Your task to perform on an android device: Open sound settings Image 0: 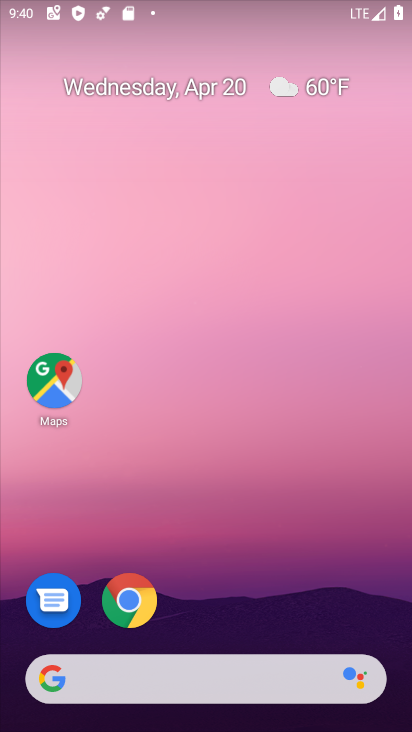
Step 0: drag from (258, 631) to (203, 101)
Your task to perform on an android device: Open sound settings Image 1: 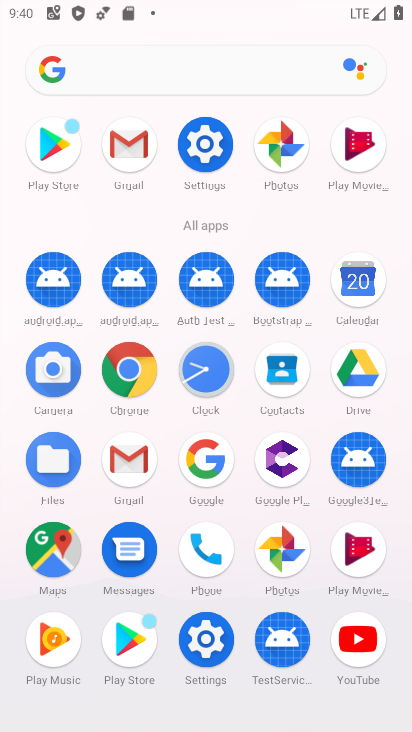
Step 1: click (207, 648)
Your task to perform on an android device: Open sound settings Image 2: 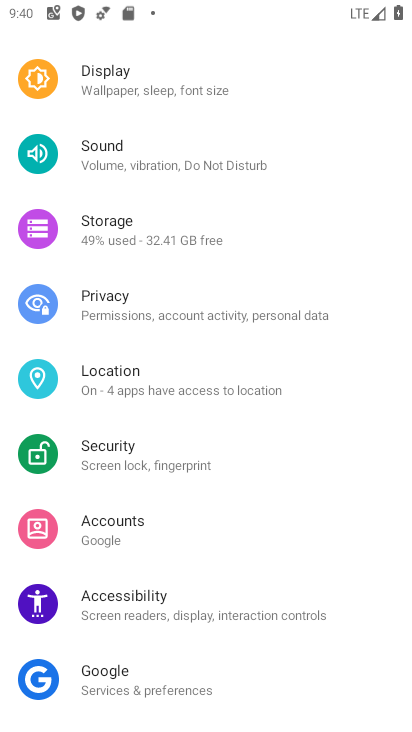
Step 2: click (111, 165)
Your task to perform on an android device: Open sound settings Image 3: 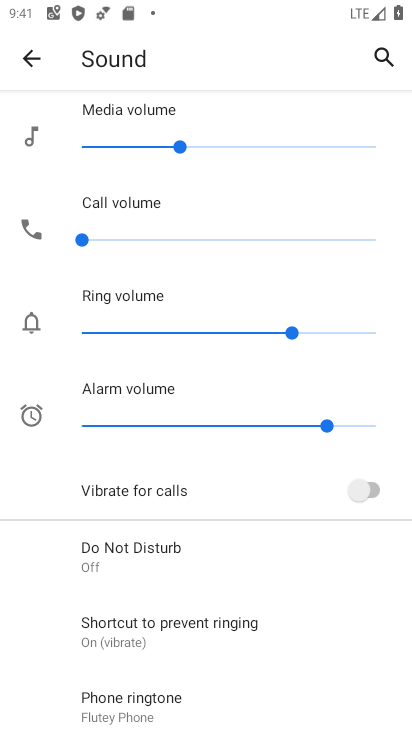
Step 3: task complete